Your task to perform on an android device: turn off location history Image 0: 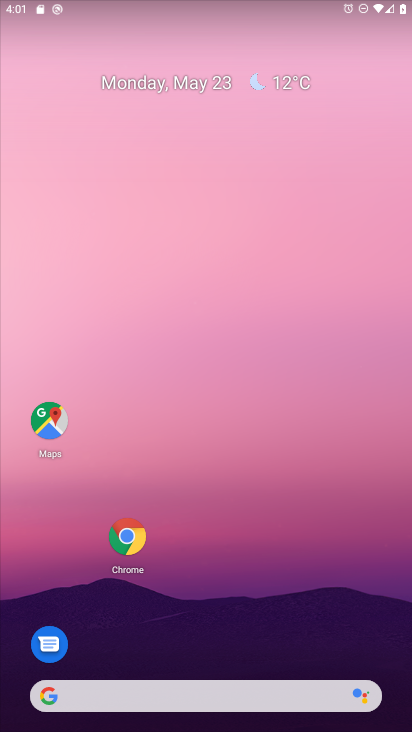
Step 0: drag from (232, 612) to (206, 100)
Your task to perform on an android device: turn off location history Image 1: 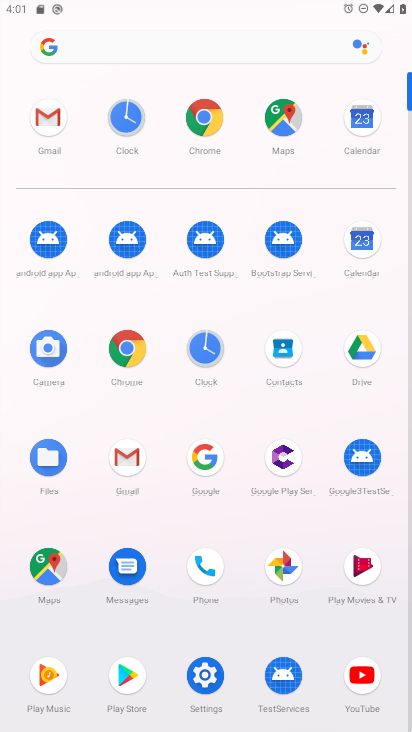
Step 1: click (206, 664)
Your task to perform on an android device: turn off location history Image 2: 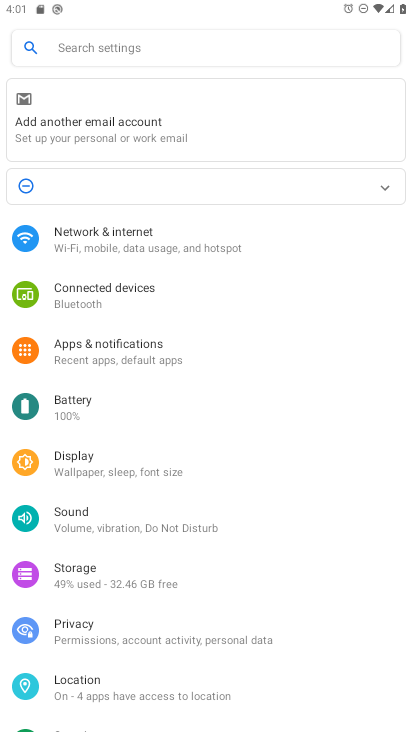
Step 2: click (98, 679)
Your task to perform on an android device: turn off location history Image 3: 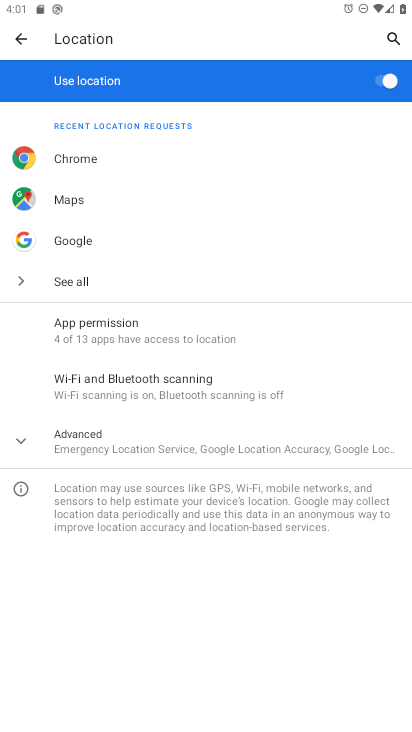
Step 3: click (97, 439)
Your task to perform on an android device: turn off location history Image 4: 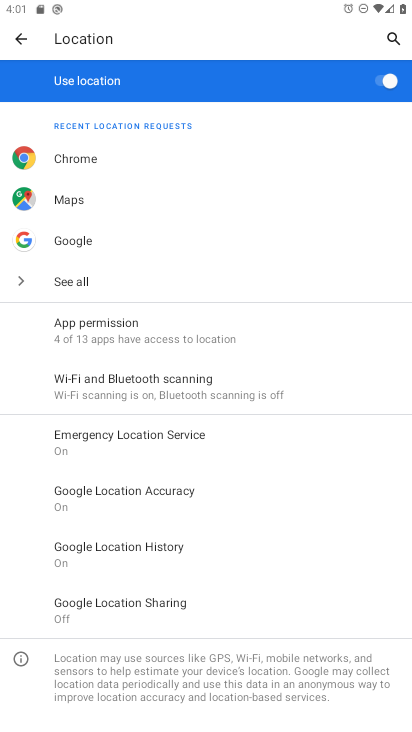
Step 4: click (87, 551)
Your task to perform on an android device: turn off location history Image 5: 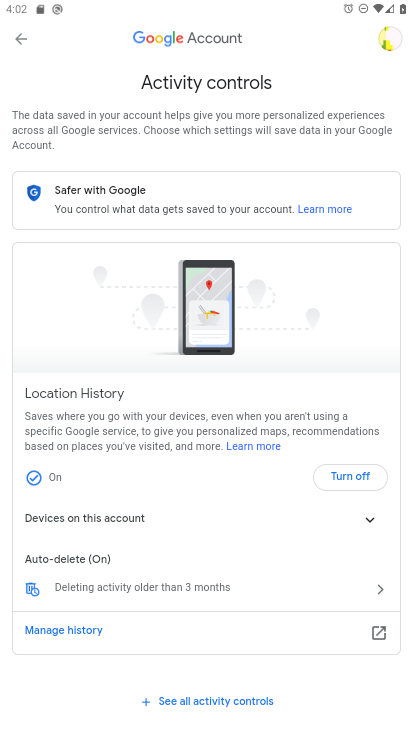
Step 5: click (355, 475)
Your task to perform on an android device: turn off location history Image 6: 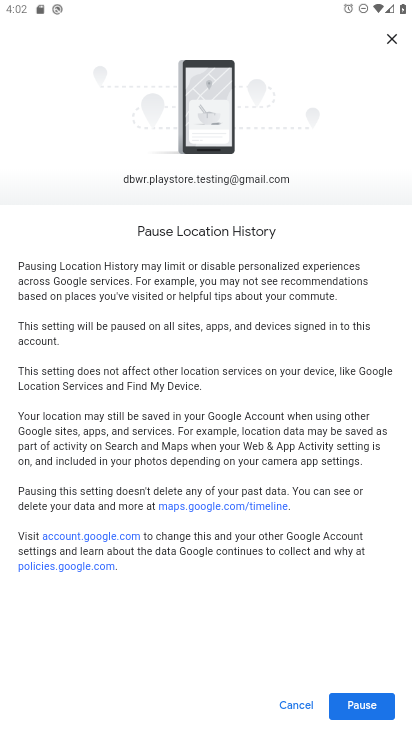
Step 6: click (369, 713)
Your task to perform on an android device: turn off location history Image 7: 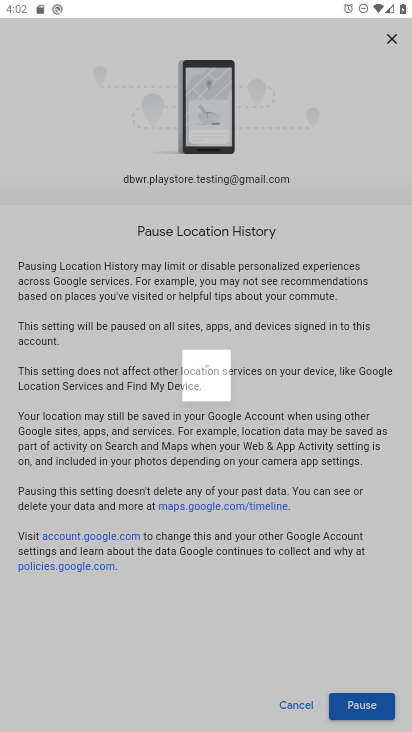
Step 7: click (369, 713)
Your task to perform on an android device: turn off location history Image 8: 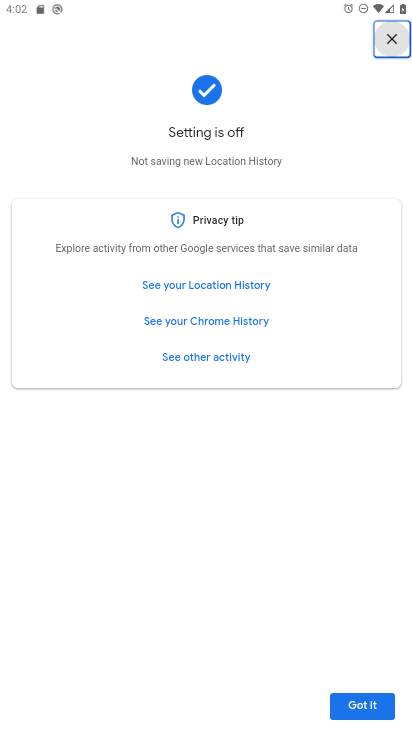
Step 8: task complete